Your task to perform on an android device: turn on location history Image 0: 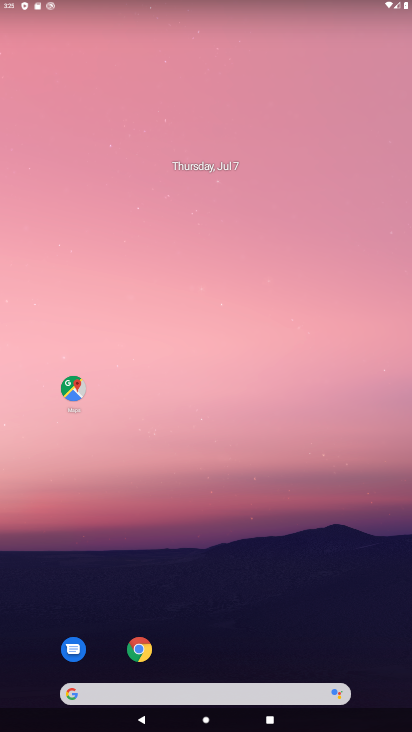
Step 0: drag from (391, 657) to (229, 35)
Your task to perform on an android device: turn on location history Image 1: 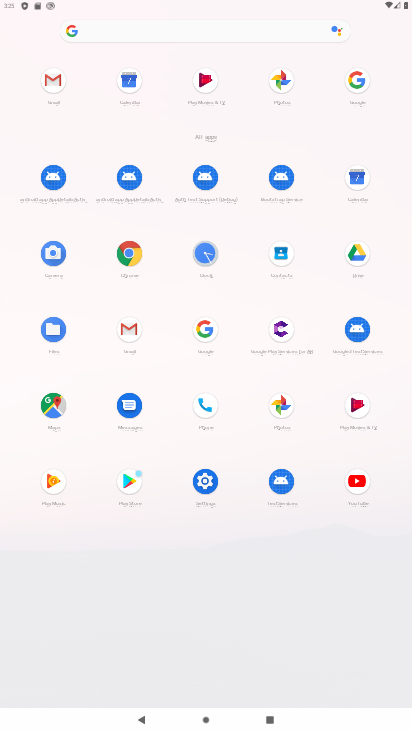
Step 1: click (195, 480)
Your task to perform on an android device: turn on location history Image 2: 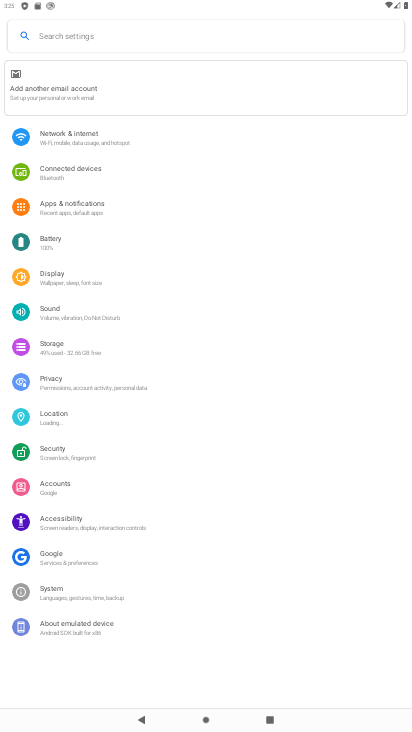
Step 2: click (55, 410)
Your task to perform on an android device: turn on location history Image 3: 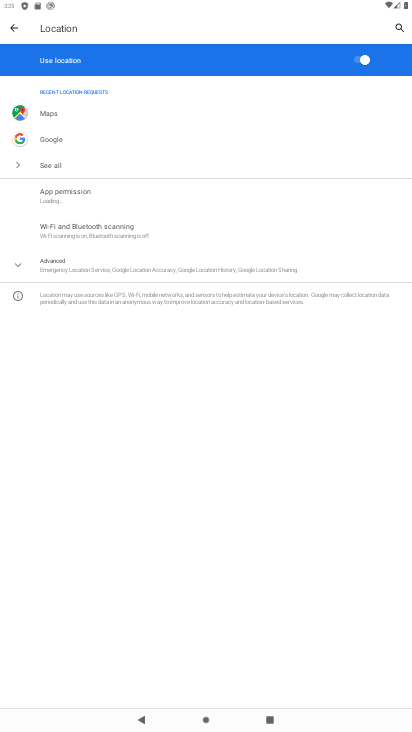
Step 3: click (70, 272)
Your task to perform on an android device: turn on location history Image 4: 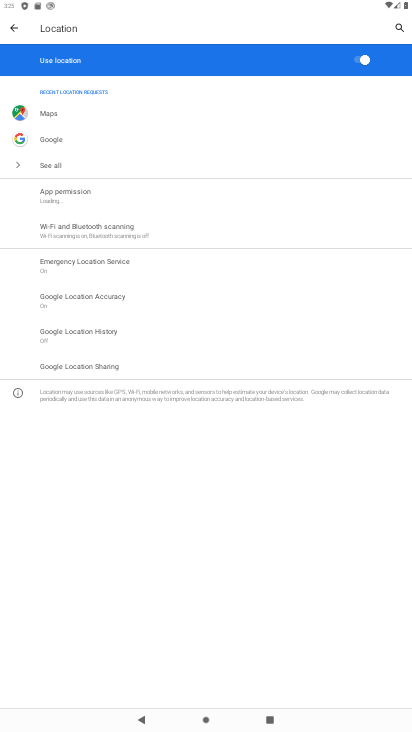
Step 4: click (123, 334)
Your task to perform on an android device: turn on location history Image 5: 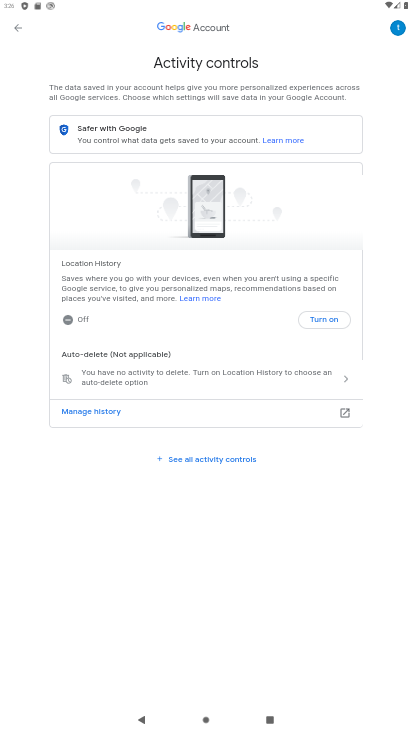
Step 5: task complete